Your task to perform on an android device: set the stopwatch Image 0: 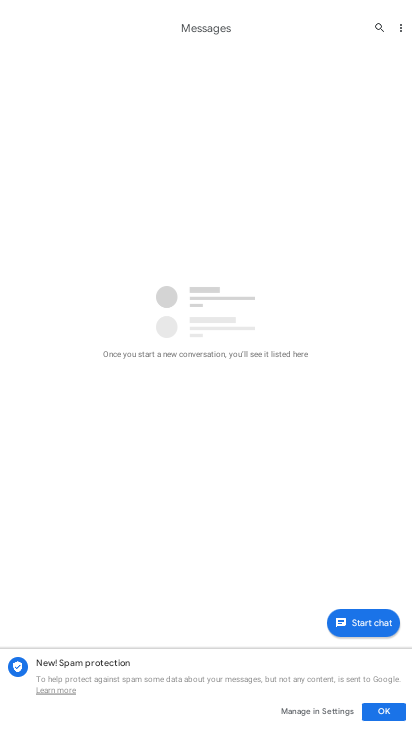
Step 0: drag from (218, 715) to (171, 289)
Your task to perform on an android device: set the stopwatch Image 1: 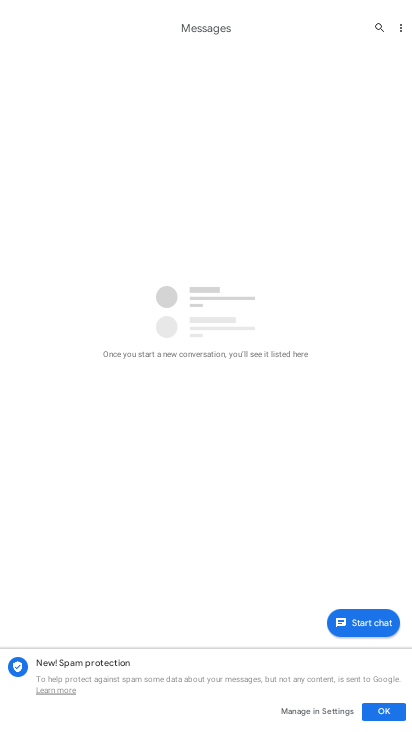
Step 1: press back button
Your task to perform on an android device: set the stopwatch Image 2: 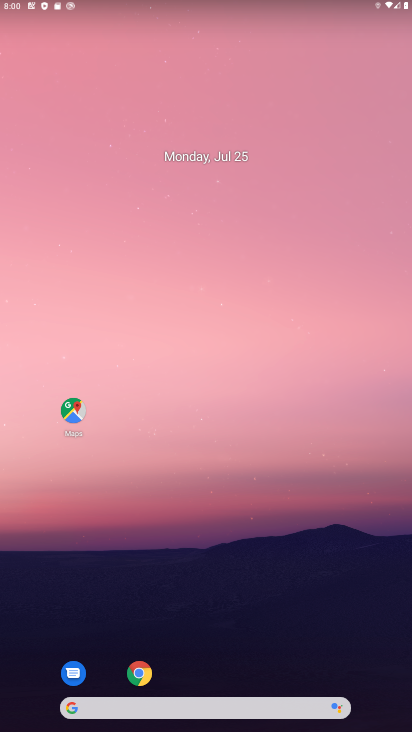
Step 2: drag from (222, 599) to (203, 6)
Your task to perform on an android device: set the stopwatch Image 3: 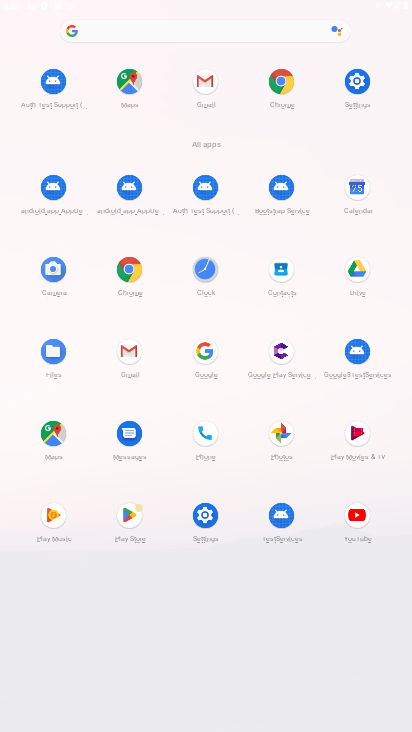
Step 3: click (204, 273)
Your task to perform on an android device: set the stopwatch Image 4: 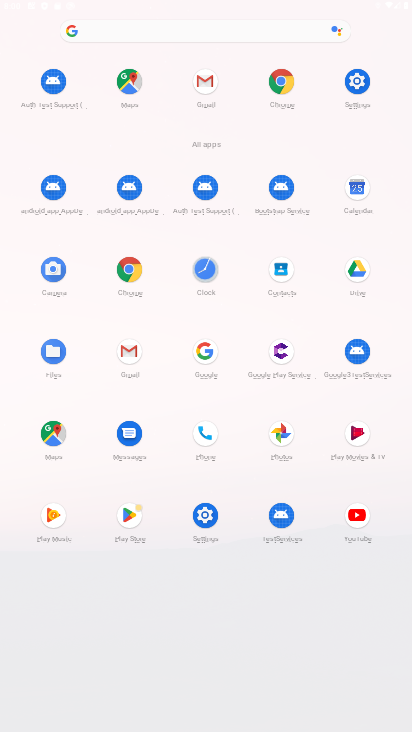
Step 4: click (203, 273)
Your task to perform on an android device: set the stopwatch Image 5: 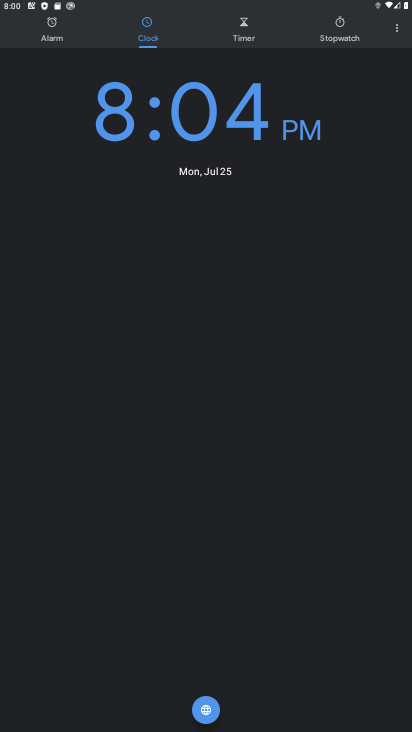
Step 5: click (331, 32)
Your task to perform on an android device: set the stopwatch Image 6: 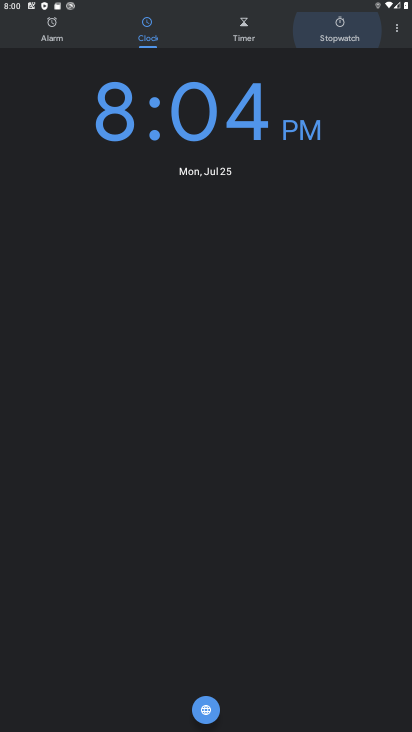
Step 6: click (332, 31)
Your task to perform on an android device: set the stopwatch Image 7: 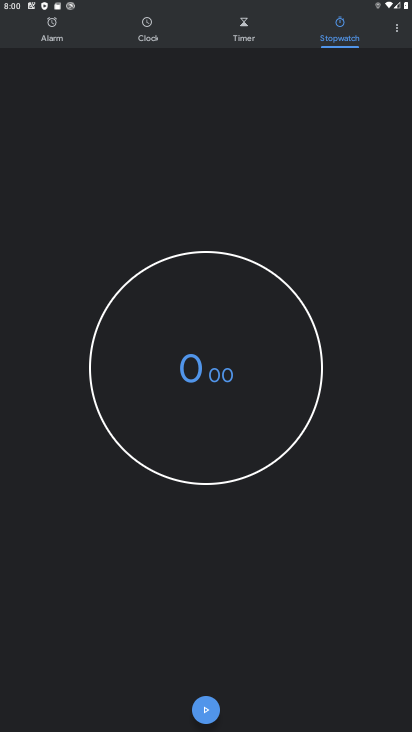
Step 7: click (206, 704)
Your task to perform on an android device: set the stopwatch Image 8: 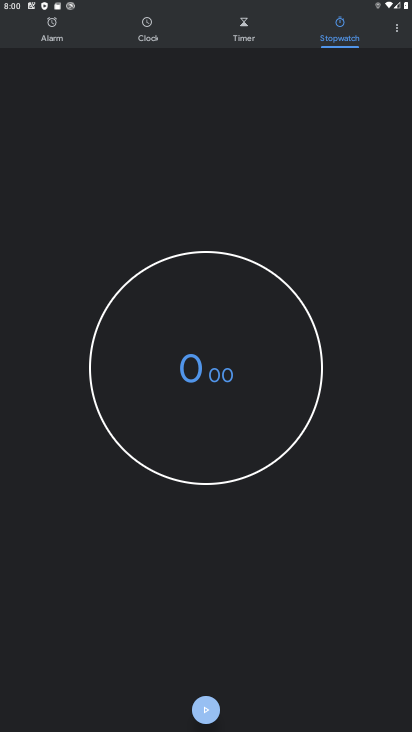
Step 8: click (207, 707)
Your task to perform on an android device: set the stopwatch Image 9: 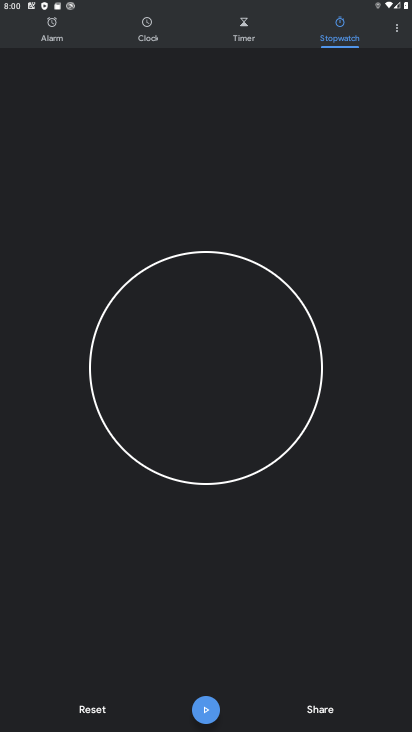
Step 9: click (208, 707)
Your task to perform on an android device: set the stopwatch Image 10: 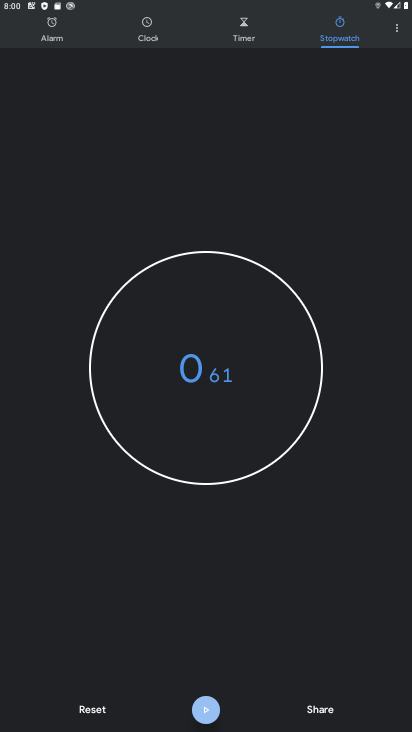
Step 10: click (208, 706)
Your task to perform on an android device: set the stopwatch Image 11: 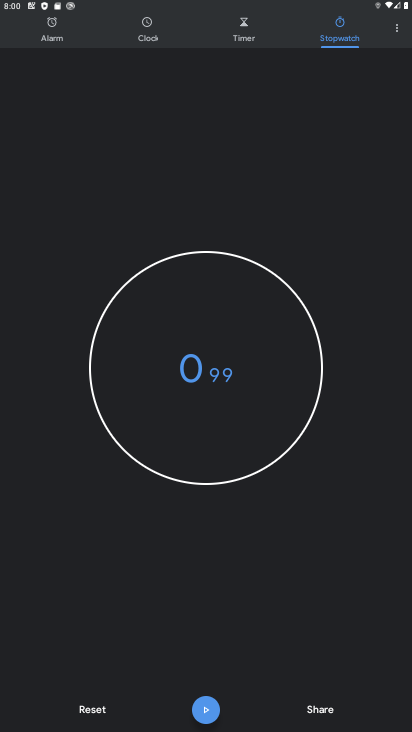
Step 11: click (217, 705)
Your task to perform on an android device: set the stopwatch Image 12: 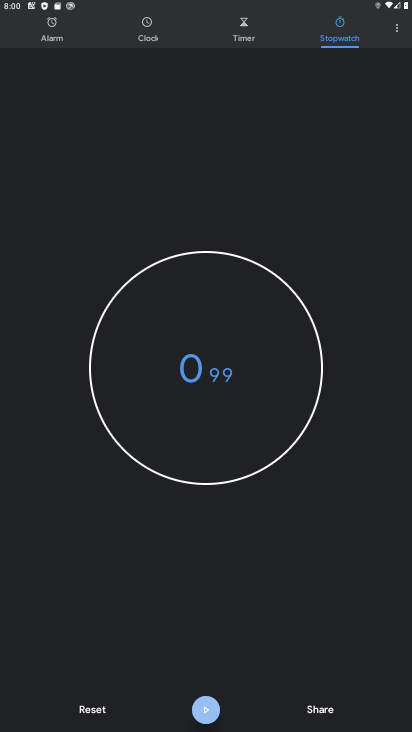
Step 12: click (203, 706)
Your task to perform on an android device: set the stopwatch Image 13: 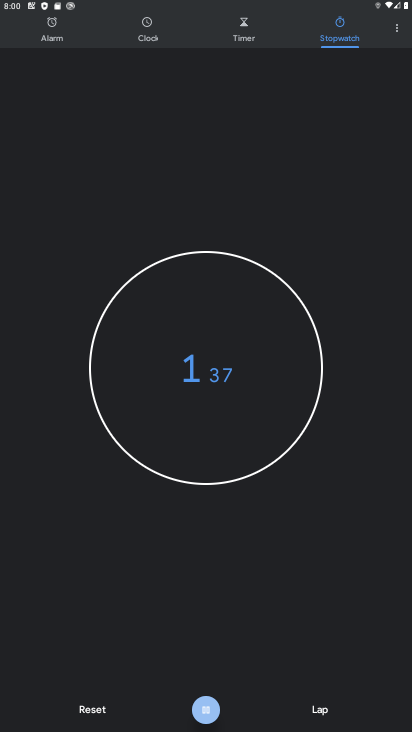
Step 13: click (202, 707)
Your task to perform on an android device: set the stopwatch Image 14: 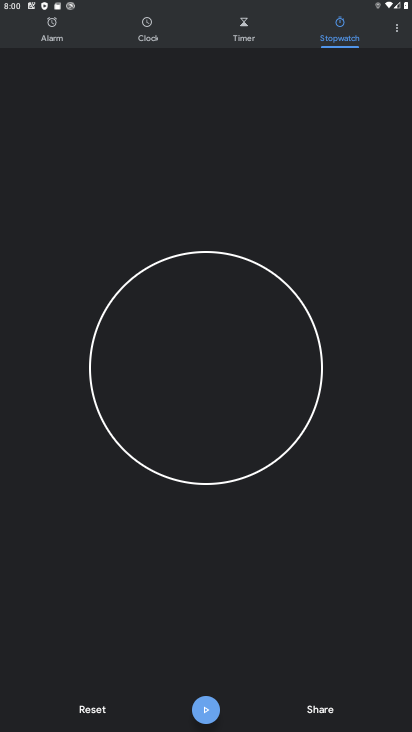
Step 14: click (202, 707)
Your task to perform on an android device: set the stopwatch Image 15: 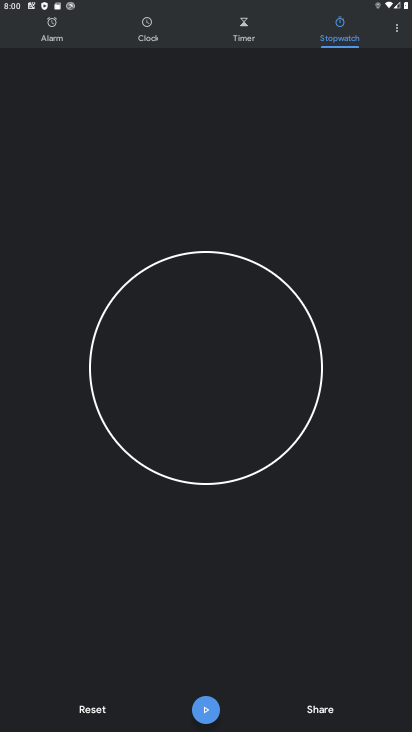
Step 15: click (210, 722)
Your task to perform on an android device: set the stopwatch Image 16: 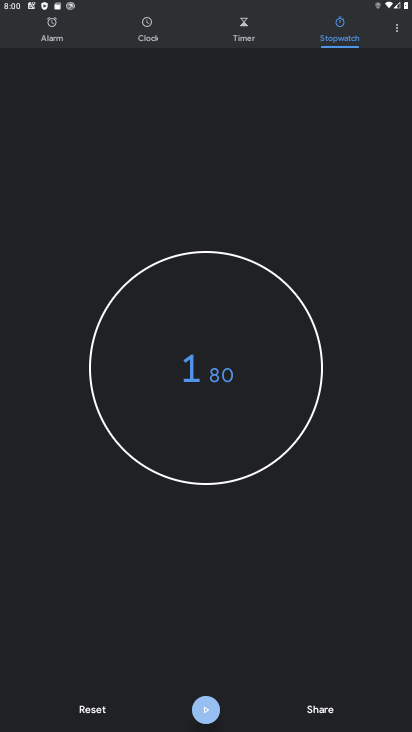
Step 16: click (208, 713)
Your task to perform on an android device: set the stopwatch Image 17: 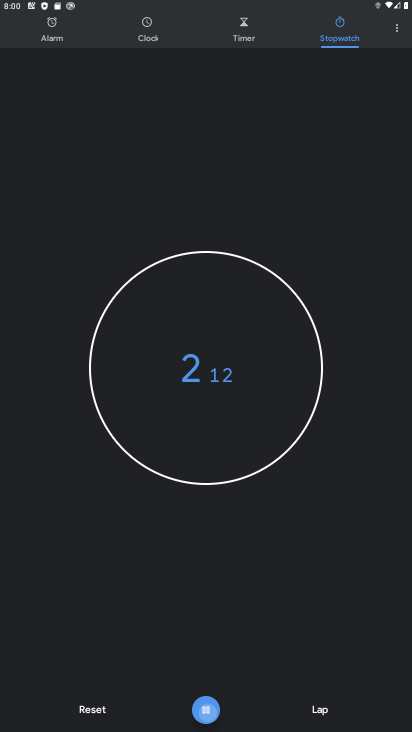
Step 17: click (208, 713)
Your task to perform on an android device: set the stopwatch Image 18: 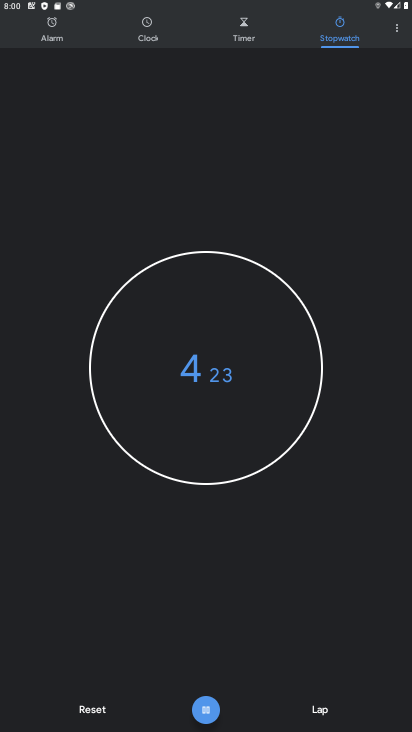
Step 18: click (211, 712)
Your task to perform on an android device: set the stopwatch Image 19: 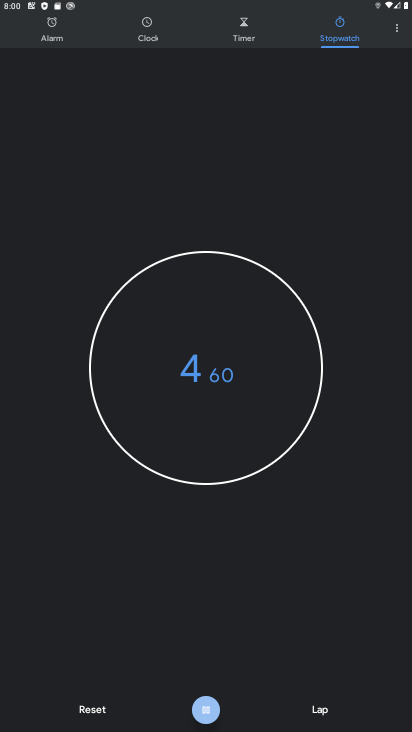
Step 19: click (211, 712)
Your task to perform on an android device: set the stopwatch Image 20: 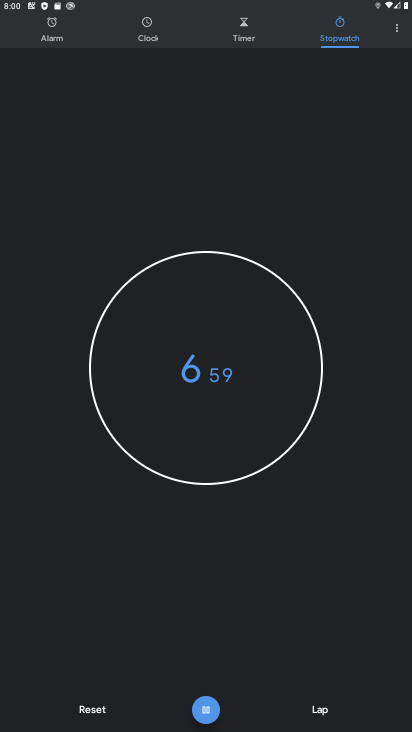
Step 20: click (207, 719)
Your task to perform on an android device: set the stopwatch Image 21: 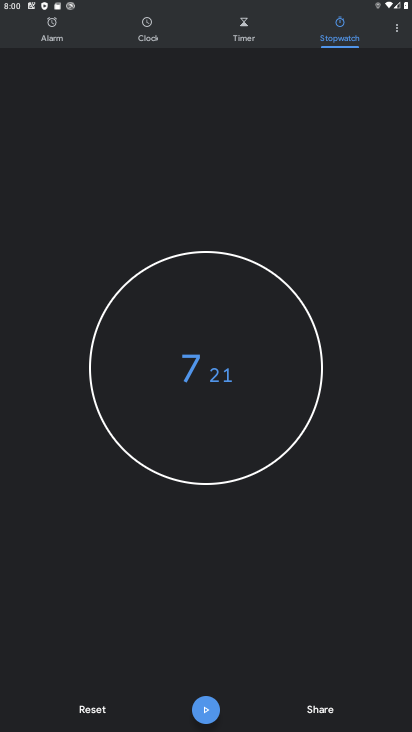
Step 21: task complete